Your task to perform on an android device: Open the stopwatch Image 0: 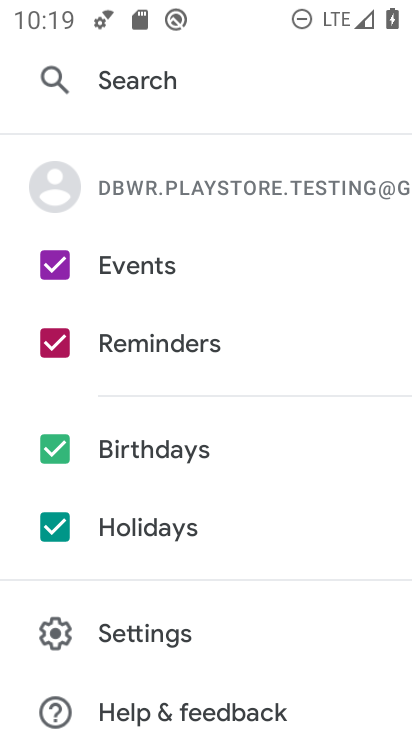
Step 0: click (396, 593)
Your task to perform on an android device: Open the stopwatch Image 1: 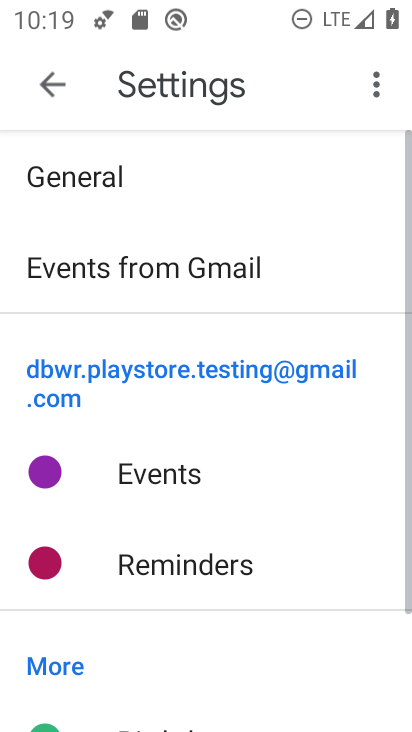
Step 1: press home button
Your task to perform on an android device: Open the stopwatch Image 2: 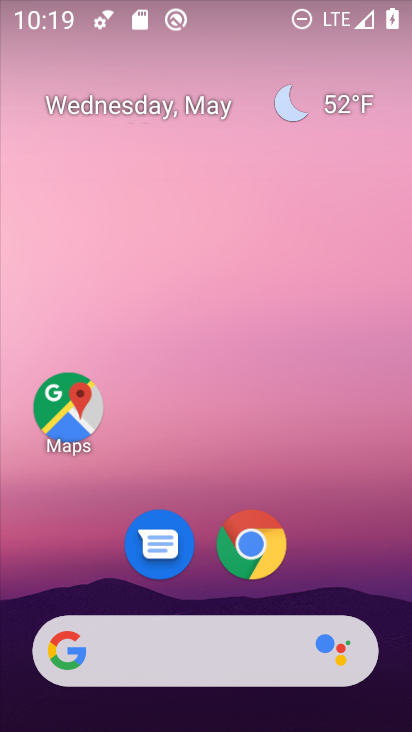
Step 2: click (214, 592)
Your task to perform on an android device: Open the stopwatch Image 3: 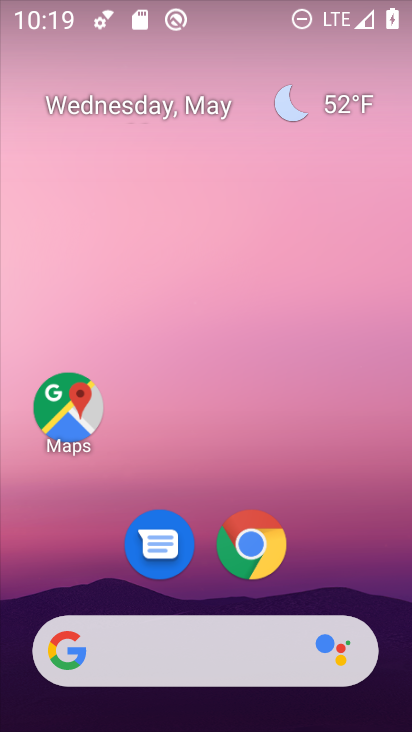
Step 3: drag from (214, 592) to (289, 61)
Your task to perform on an android device: Open the stopwatch Image 4: 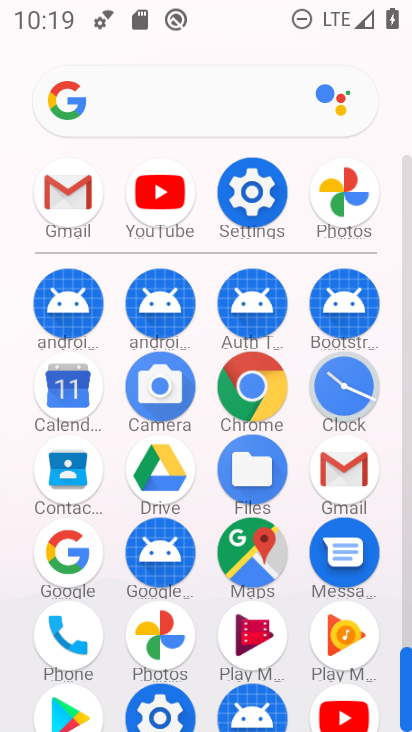
Step 4: click (344, 409)
Your task to perform on an android device: Open the stopwatch Image 5: 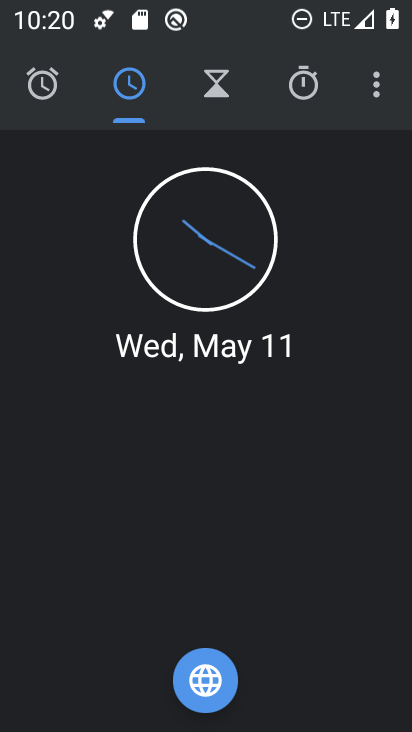
Step 5: click (284, 98)
Your task to perform on an android device: Open the stopwatch Image 6: 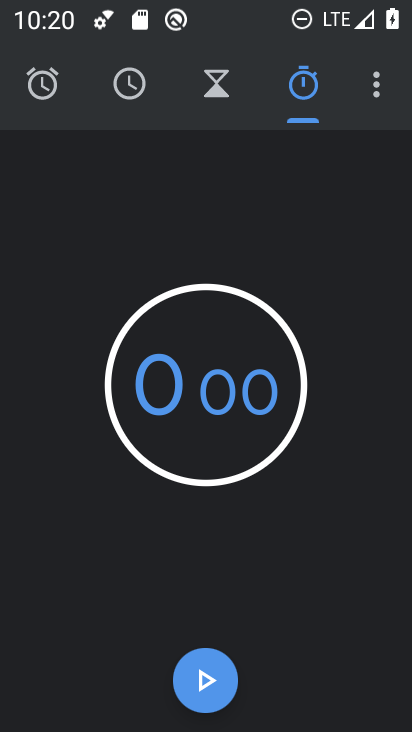
Step 6: task complete